Your task to perform on an android device: Open Google Chrome and click the shortcut for Amazon.com Image 0: 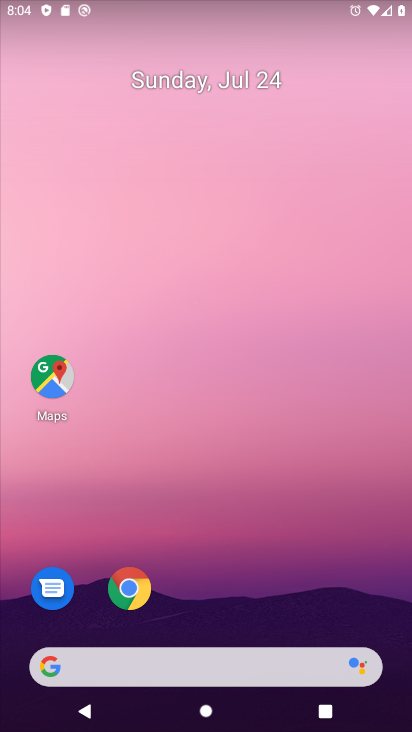
Step 0: click (274, 239)
Your task to perform on an android device: Open Google Chrome and click the shortcut for Amazon.com Image 1: 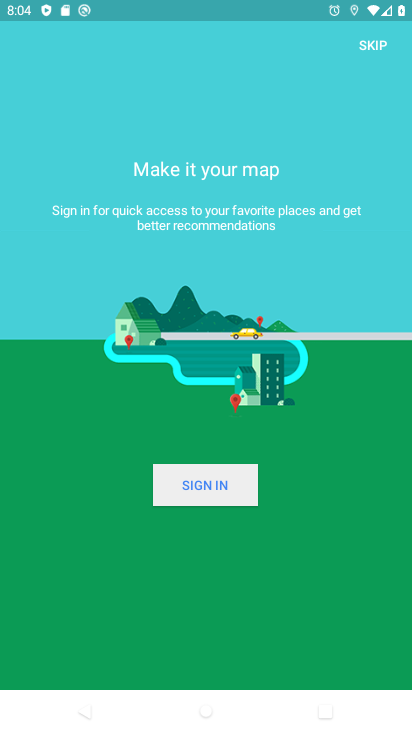
Step 1: press home button
Your task to perform on an android device: Open Google Chrome and click the shortcut for Amazon.com Image 2: 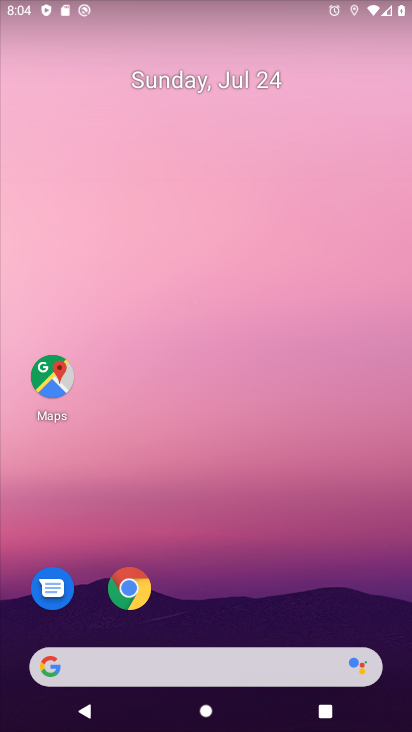
Step 2: drag from (250, 620) to (222, 25)
Your task to perform on an android device: Open Google Chrome and click the shortcut for Amazon.com Image 3: 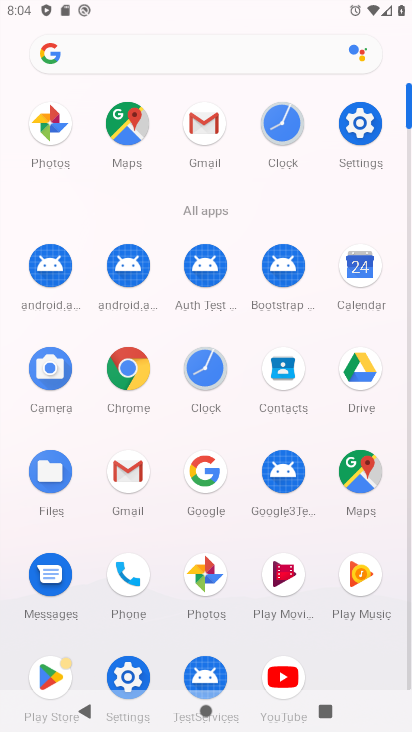
Step 3: click (134, 378)
Your task to perform on an android device: Open Google Chrome and click the shortcut for Amazon.com Image 4: 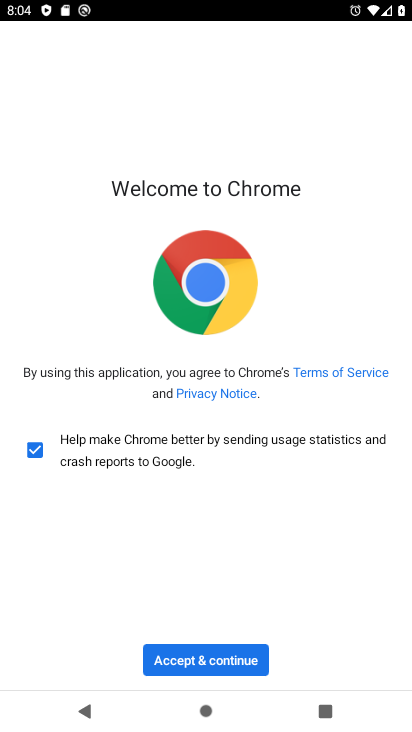
Step 4: click (222, 647)
Your task to perform on an android device: Open Google Chrome and click the shortcut for Amazon.com Image 5: 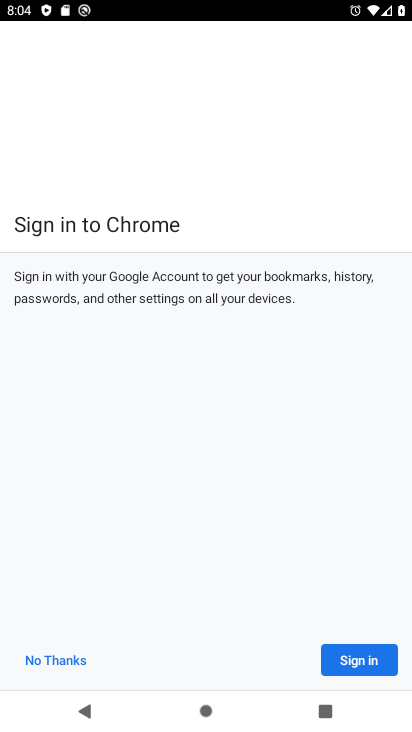
Step 5: click (382, 653)
Your task to perform on an android device: Open Google Chrome and click the shortcut for Amazon.com Image 6: 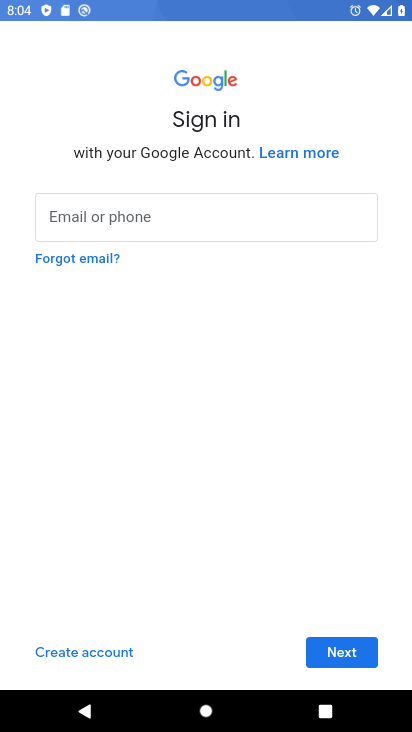
Step 6: task complete